Your task to perform on an android device: Go to Yahoo.com Image 0: 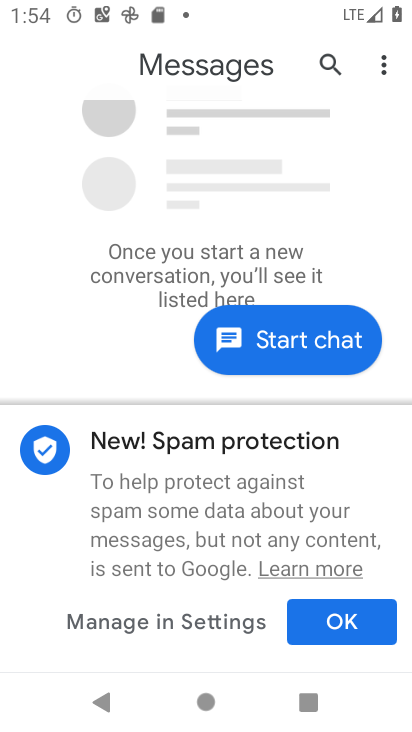
Step 0: press home button
Your task to perform on an android device: Go to Yahoo.com Image 1: 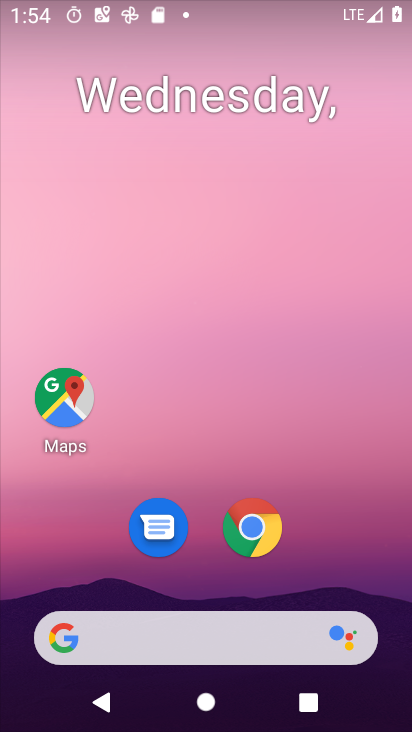
Step 1: drag from (217, 574) to (350, 0)
Your task to perform on an android device: Go to Yahoo.com Image 2: 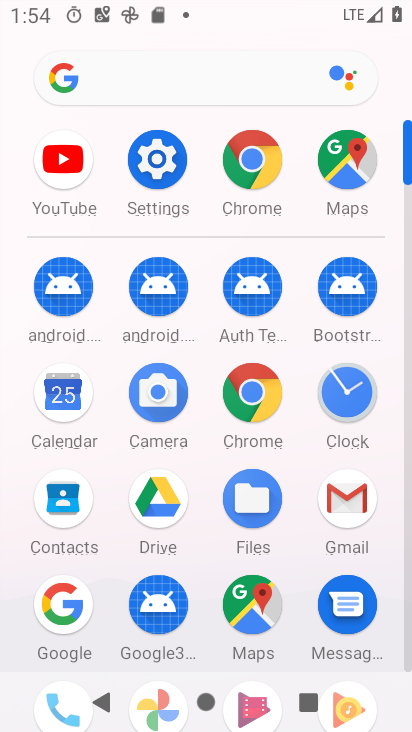
Step 2: click (270, 398)
Your task to perform on an android device: Go to Yahoo.com Image 3: 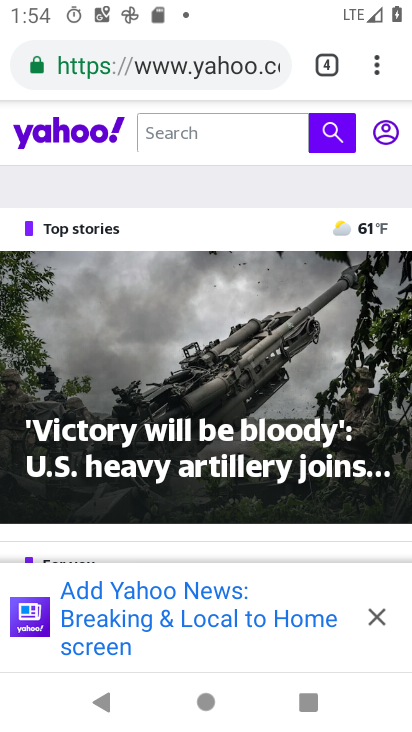
Step 3: task complete